Your task to perform on an android device: Show me recent news Image 0: 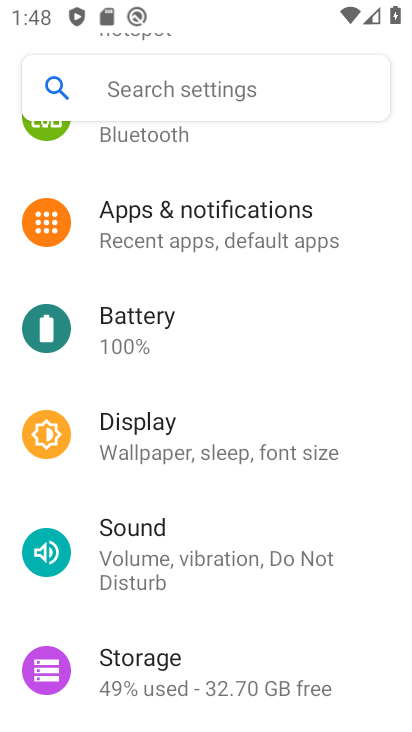
Step 0: press home button
Your task to perform on an android device: Show me recent news Image 1: 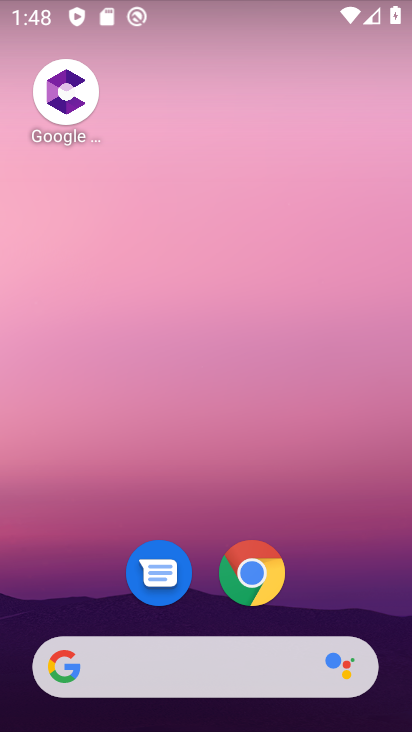
Step 1: task complete